Your task to perform on an android device: What's on my calendar tomorrow? Image 0: 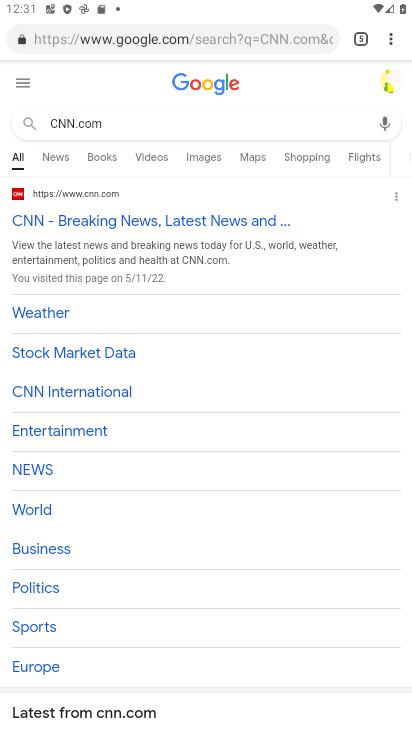
Step 0: press home button
Your task to perform on an android device: What's on my calendar tomorrow? Image 1: 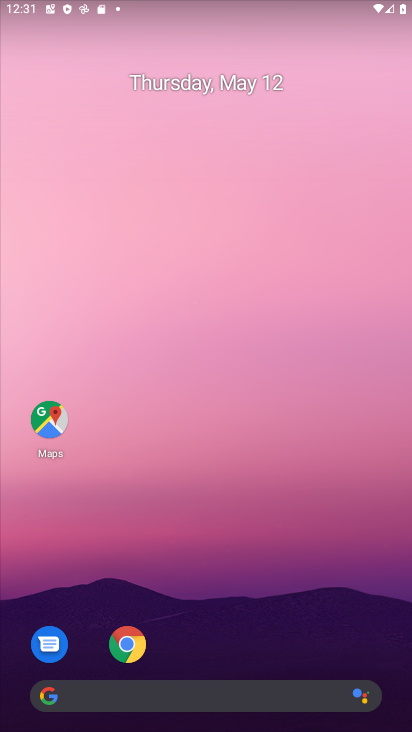
Step 1: drag from (248, 638) to (240, 35)
Your task to perform on an android device: What's on my calendar tomorrow? Image 2: 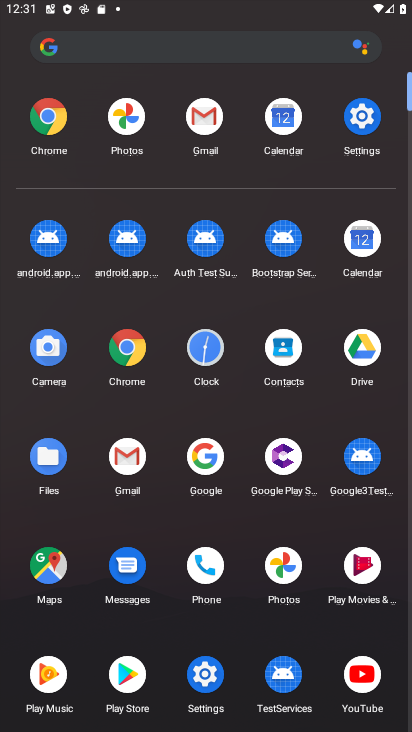
Step 2: click (362, 122)
Your task to perform on an android device: What's on my calendar tomorrow? Image 3: 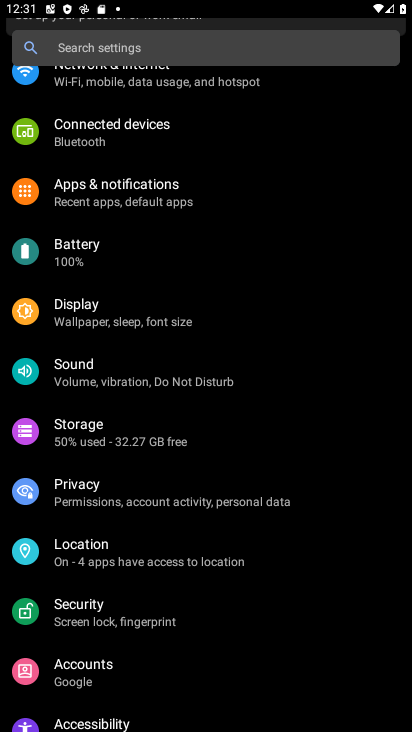
Step 3: press home button
Your task to perform on an android device: What's on my calendar tomorrow? Image 4: 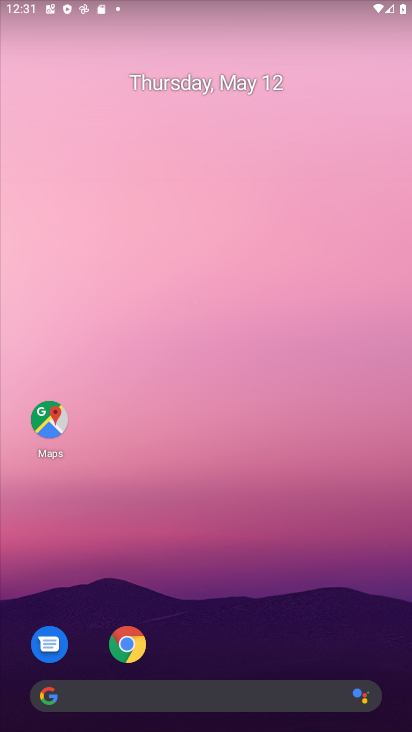
Step 4: drag from (267, 612) to (268, 274)
Your task to perform on an android device: What's on my calendar tomorrow? Image 5: 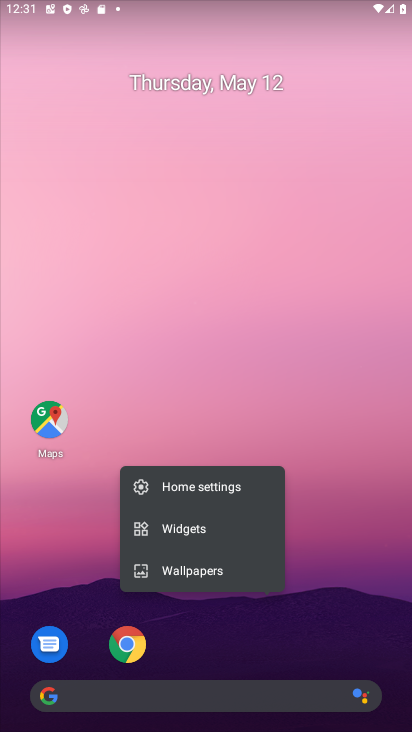
Step 5: click (268, 274)
Your task to perform on an android device: What's on my calendar tomorrow? Image 6: 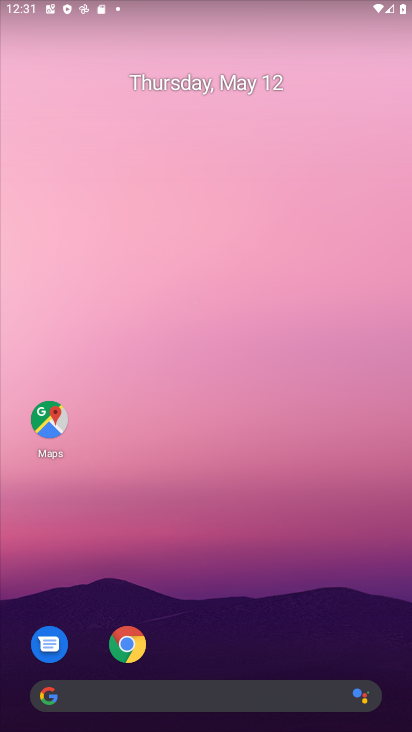
Step 6: drag from (229, 613) to (178, 203)
Your task to perform on an android device: What's on my calendar tomorrow? Image 7: 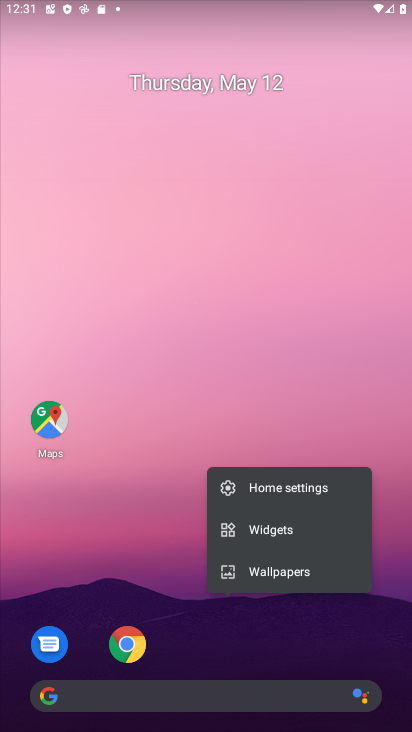
Step 7: click (138, 517)
Your task to perform on an android device: What's on my calendar tomorrow? Image 8: 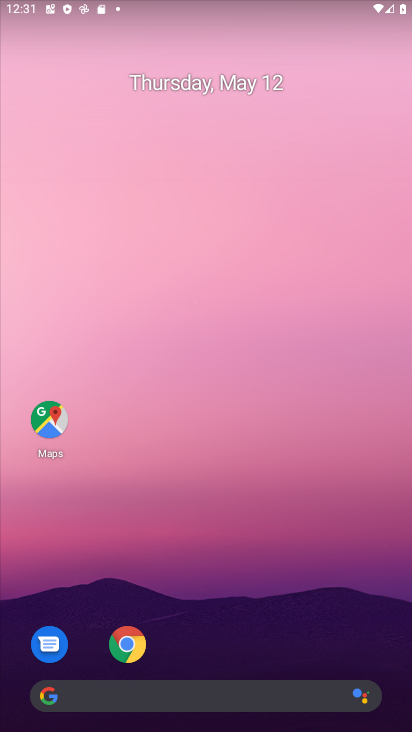
Step 8: drag from (257, 631) to (284, 166)
Your task to perform on an android device: What's on my calendar tomorrow? Image 9: 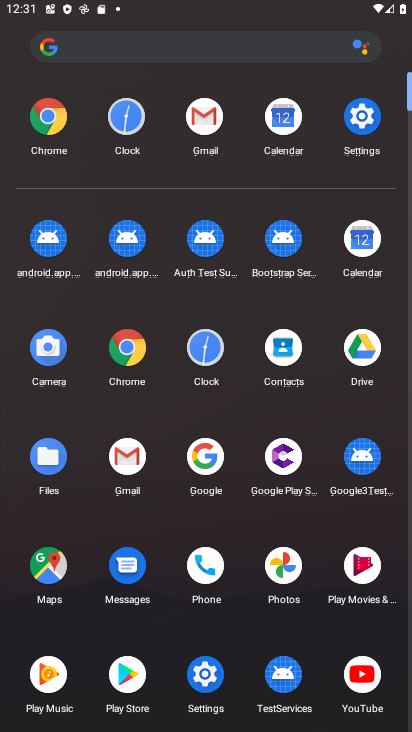
Step 9: click (355, 256)
Your task to perform on an android device: What's on my calendar tomorrow? Image 10: 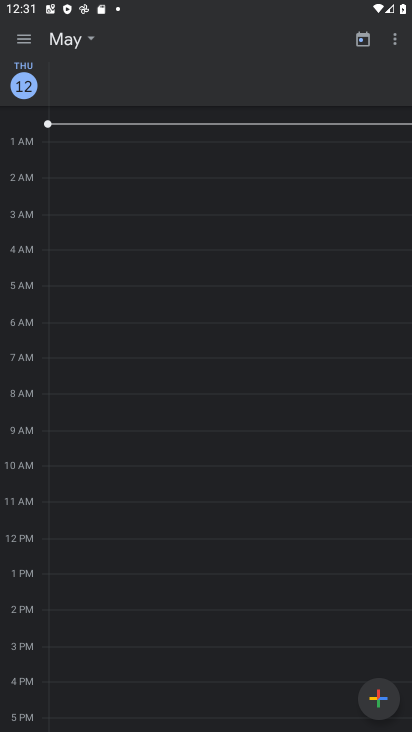
Step 10: click (27, 34)
Your task to perform on an android device: What's on my calendar tomorrow? Image 11: 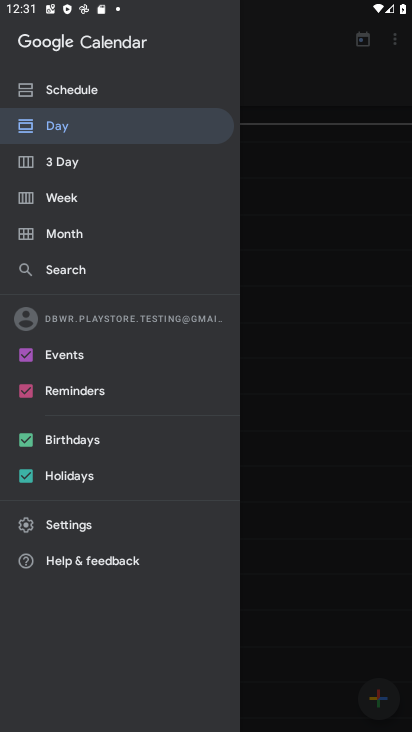
Step 11: click (81, 191)
Your task to perform on an android device: What's on my calendar tomorrow? Image 12: 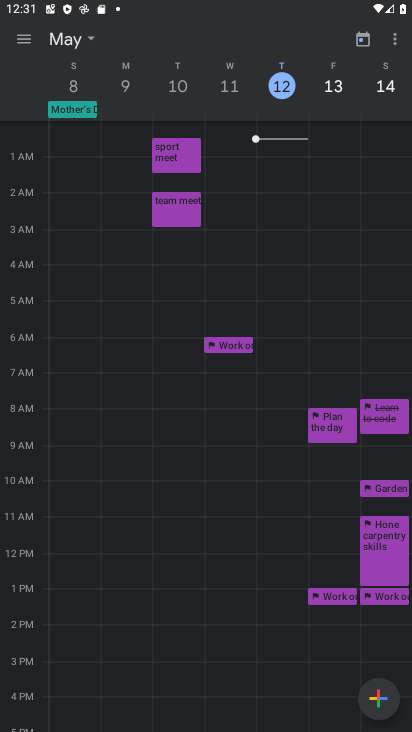
Step 12: click (98, 51)
Your task to perform on an android device: What's on my calendar tomorrow? Image 13: 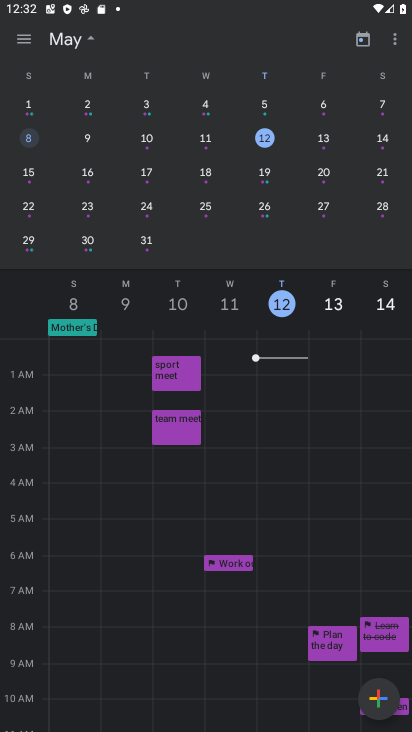
Step 13: task complete